Your task to perform on an android device: clear all cookies in the chrome app Image 0: 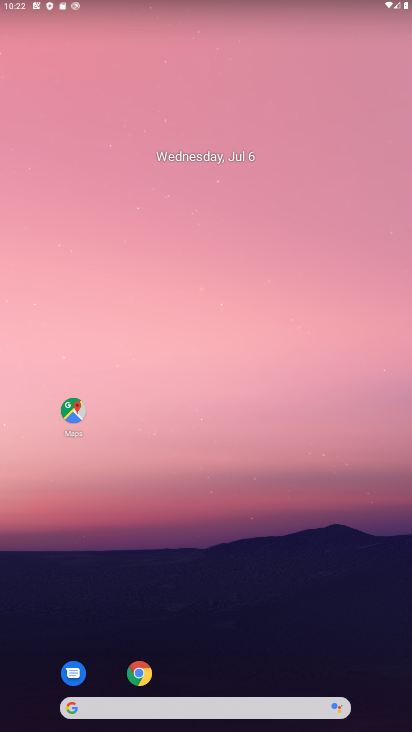
Step 0: click (137, 677)
Your task to perform on an android device: clear all cookies in the chrome app Image 1: 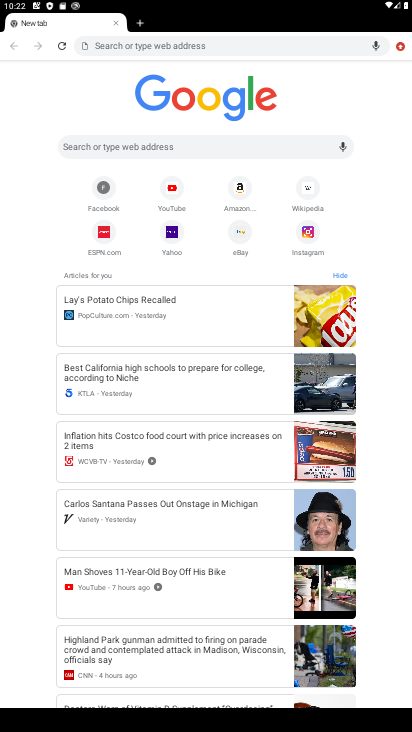
Step 1: click (402, 47)
Your task to perform on an android device: clear all cookies in the chrome app Image 2: 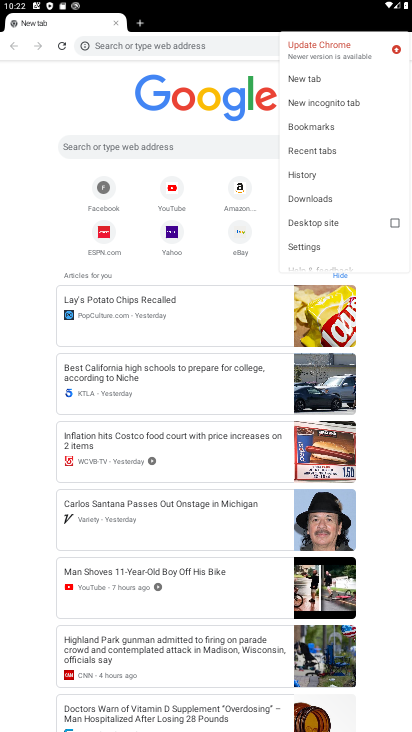
Step 2: click (307, 175)
Your task to perform on an android device: clear all cookies in the chrome app Image 3: 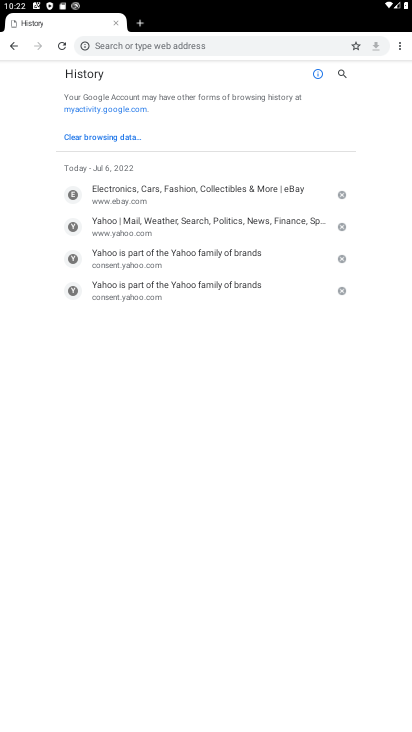
Step 3: click (87, 136)
Your task to perform on an android device: clear all cookies in the chrome app Image 4: 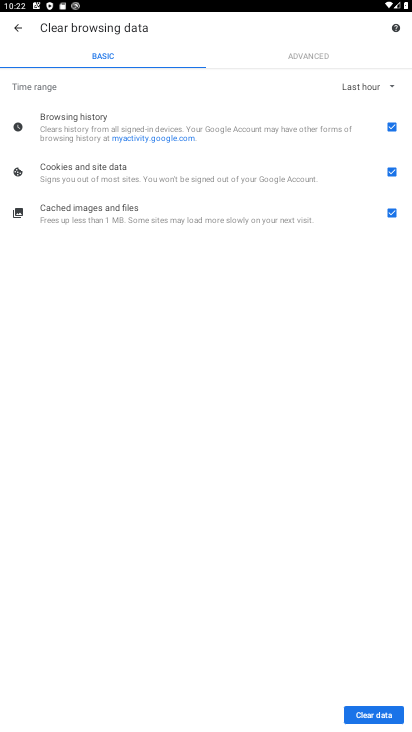
Step 4: click (390, 124)
Your task to perform on an android device: clear all cookies in the chrome app Image 5: 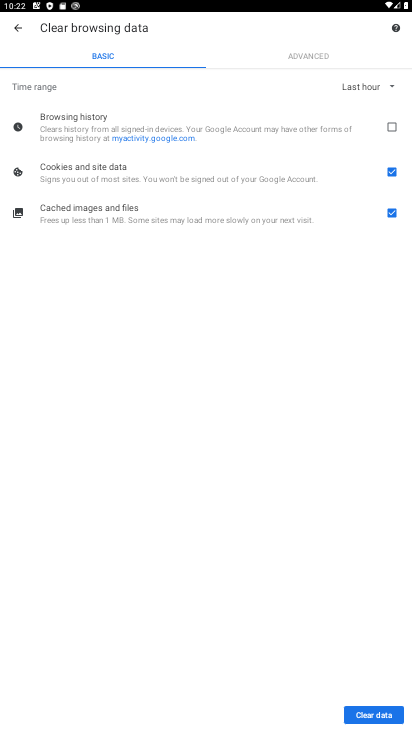
Step 5: click (393, 211)
Your task to perform on an android device: clear all cookies in the chrome app Image 6: 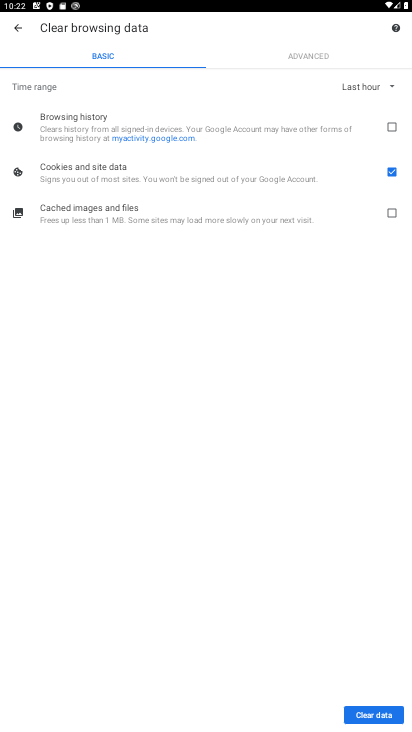
Step 6: click (388, 213)
Your task to perform on an android device: clear all cookies in the chrome app Image 7: 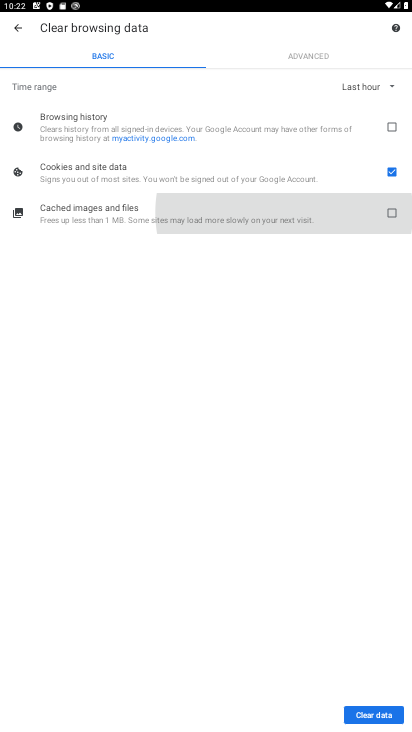
Step 7: click (392, 211)
Your task to perform on an android device: clear all cookies in the chrome app Image 8: 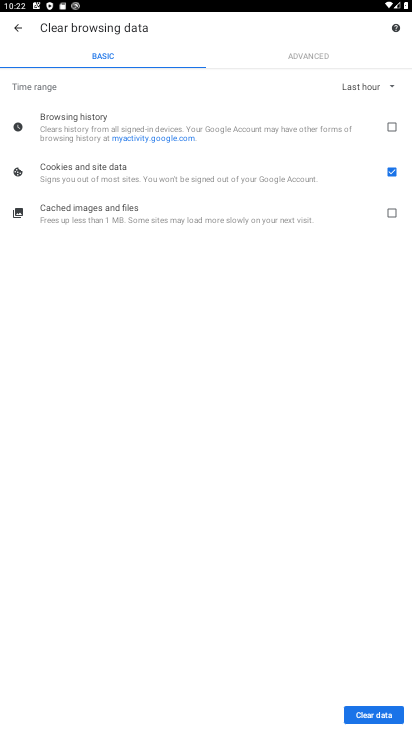
Step 8: click (377, 713)
Your task to perform on an android device: clear all cookies in the chrome app Image 9: 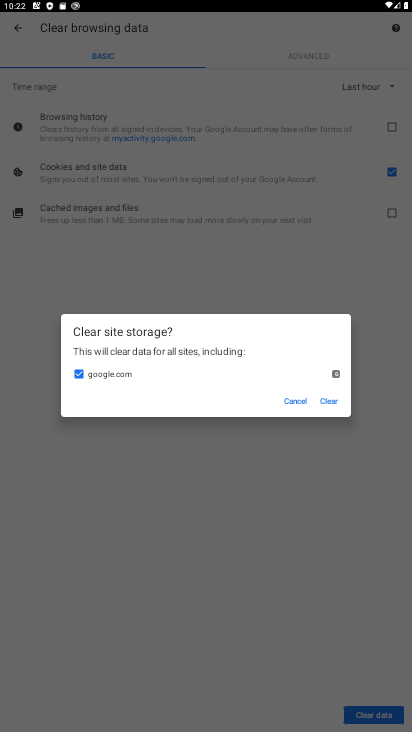
Step 9: click (326, 396)
Your task to perform on an android device: clear all cookies in the chrome app Image 10: 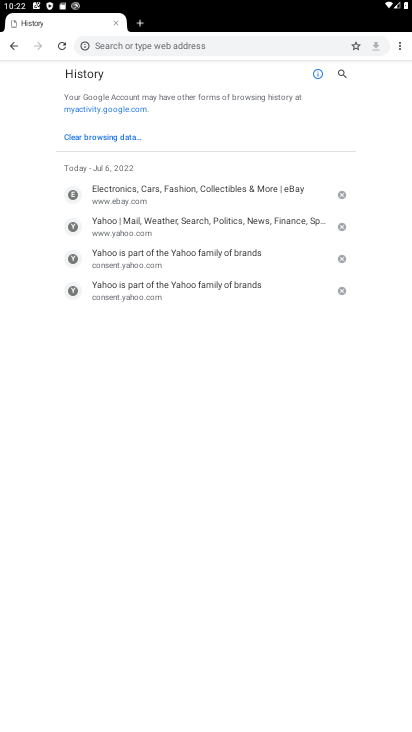
Step 10: task complete